Your task to perform on an android device: Open calendar and show me the fourth week of next month Image 0: 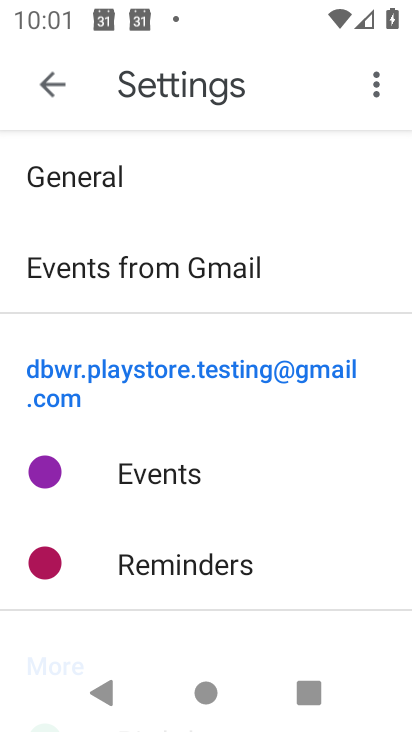
Step 0: press back button
Your task to perform on an android device: Open calendar and show me the fourth week of next month Image 1: 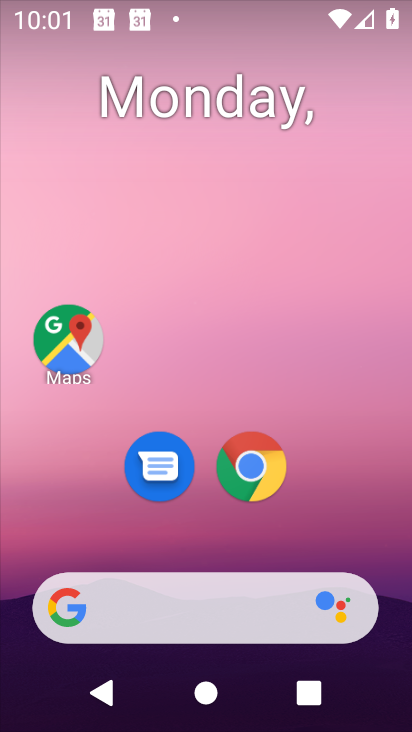
Step 1: drag from (364, 480) to (286, 158)
Your task to perform on an android device: Open calendar and show me the fourth week of next month Image 2: 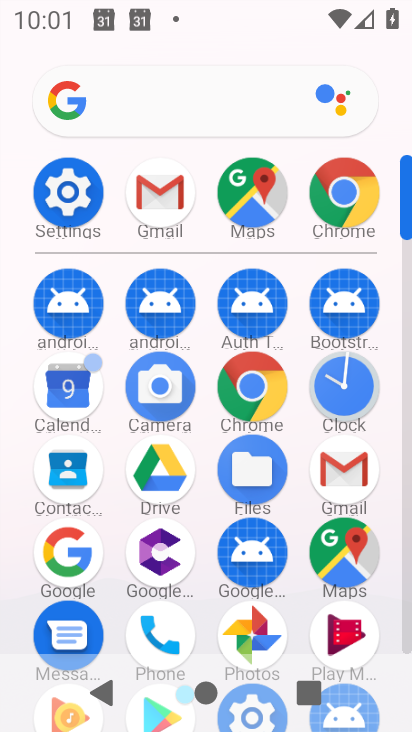
Step 2: click (62, 382)
Your task to perform on an android device: Open calendar and show me the fourth week of next month Image 3: 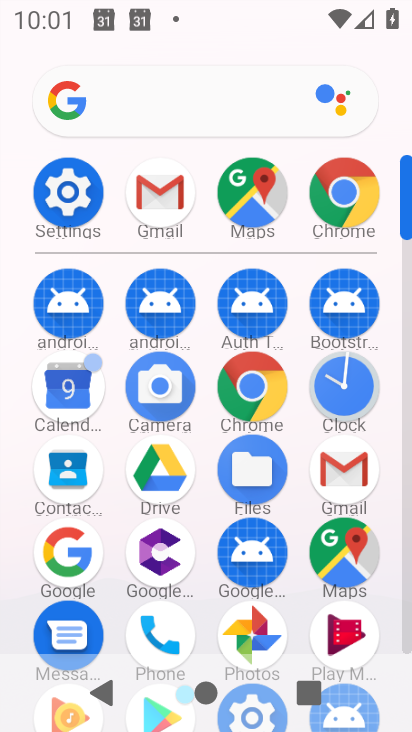
Step 3: click (61, 383)
Your task to perform on an android device: Open calendar and show me the fourth week of next month Image 4: 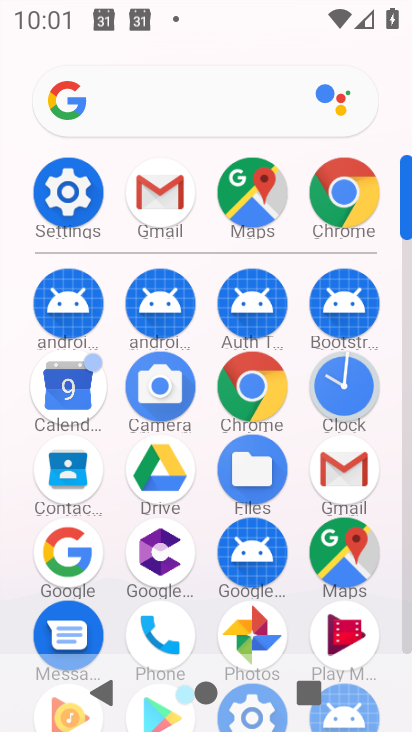
Step 4: click (61, 383)
Your task to perform on an android device: Open calendar and show me the fourth week of next month Image 5: 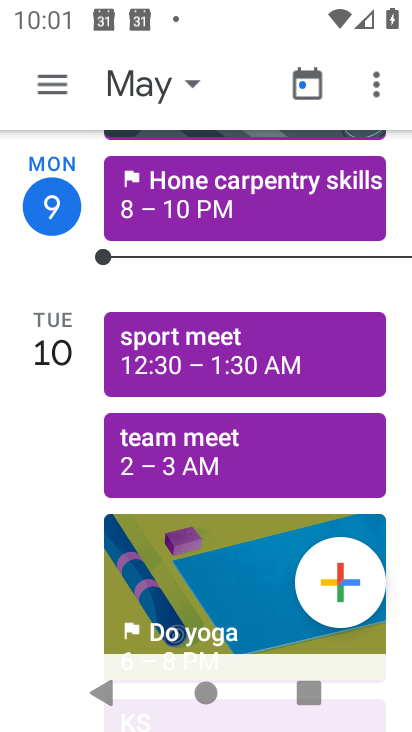
Step 5: click (186, 82)
Your task to perform on an android device: Open calendar and show me the fourth week of next month Image 6: 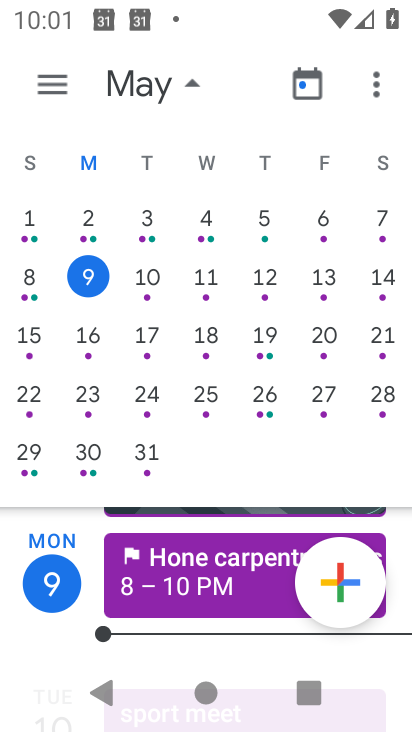
Step 6: drag from (253, 350) to (16, 340)
Your task to perform on an android device: Open calendar and show me the fourth week of next month Image 7: 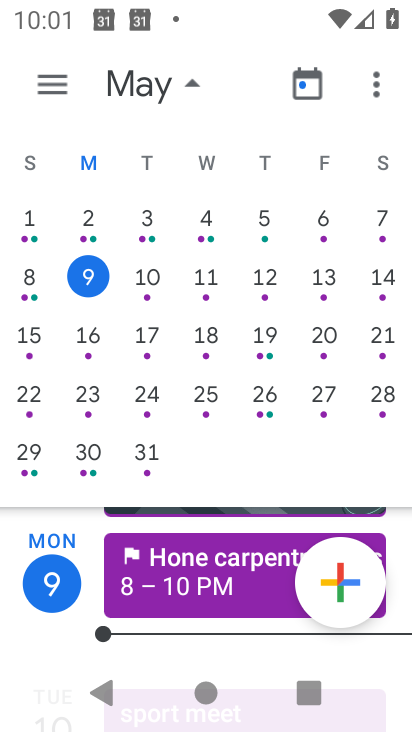
Step 7: drag from (244, 333) to (12, 296)
Your task to perform on an android device: Open calendar and show me the fourth week of next month Image 8: 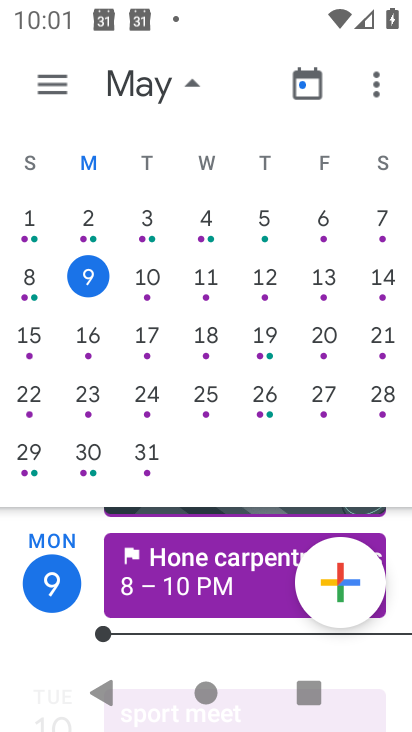
Step 8: drag from (215, 321) to (7, 393)
Your task to perform on an android device: Open calendar and show me the fourth week of next month Image 9: 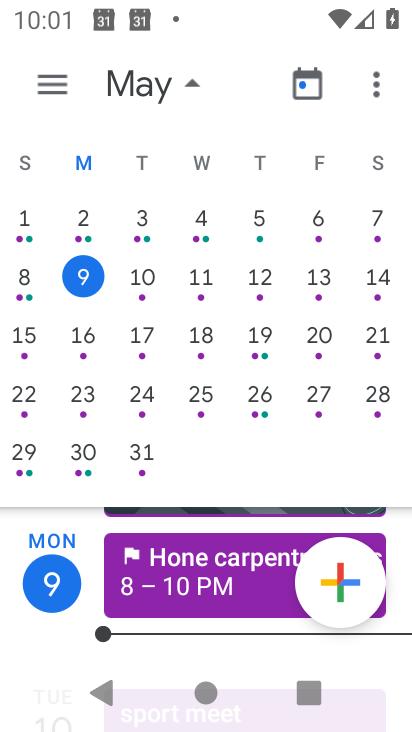
Step 9: drag from (238, 303) to (25, 282)
Your task to perform on an android device: Open calendar and show me the fourth week of next month Image 10: 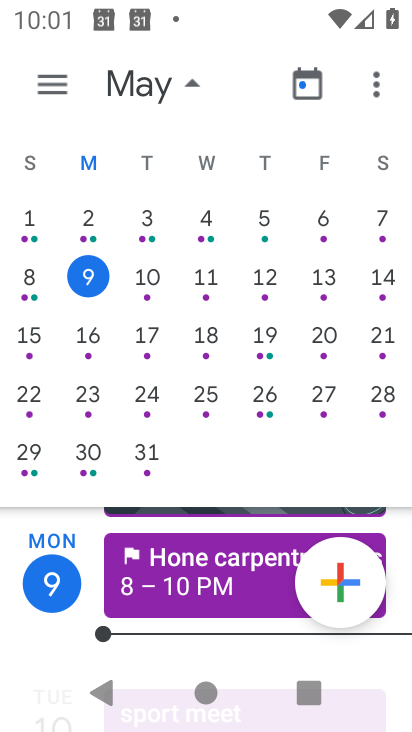
Step 10: drag from (242, 328) to (90, 436)
Your task to perform on an android device: Open calendar and show me the fourth week of next month Image 11: 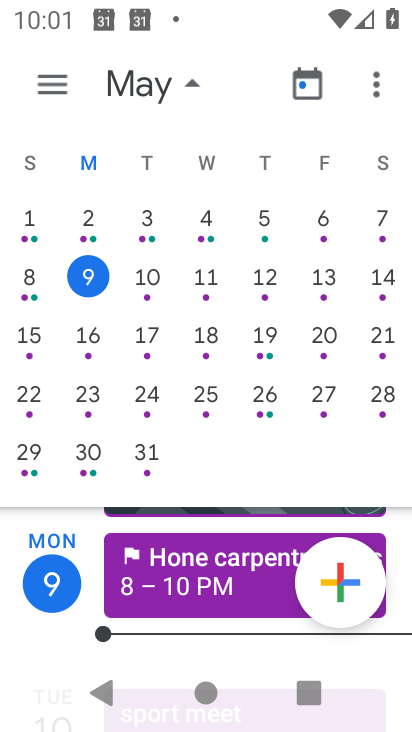
Step 11: drag from (230, 304) to (64, 390)
Your task to perform on an android device: Open calendar and show me the fourth week of next month Image 12: 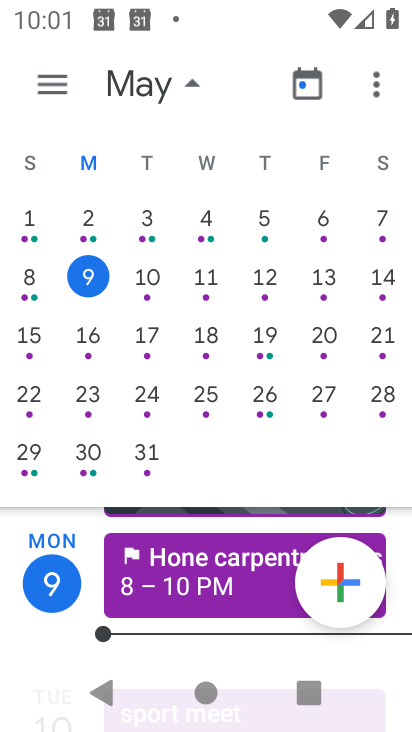
Step 12: drag from (212, 310) to (75, 361)
Your task to perform on an android device: Open calendar and show me the fourth week of next month Image 13: 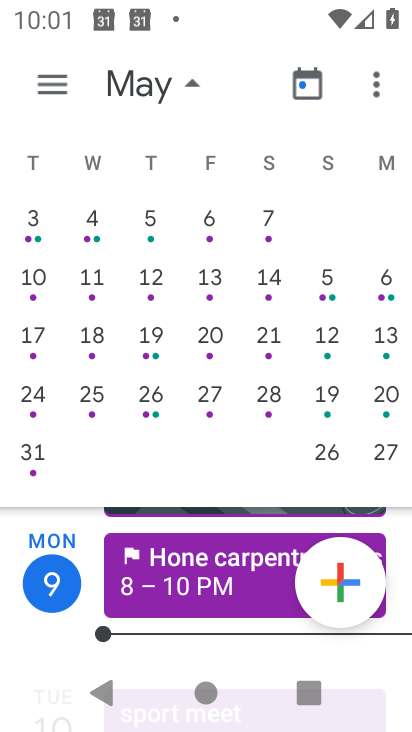
Step 13: drag from (245, 318) to (20, 324)
Your task to perform on an android device: Open calendar and show me the fourth week of next month Image 14: 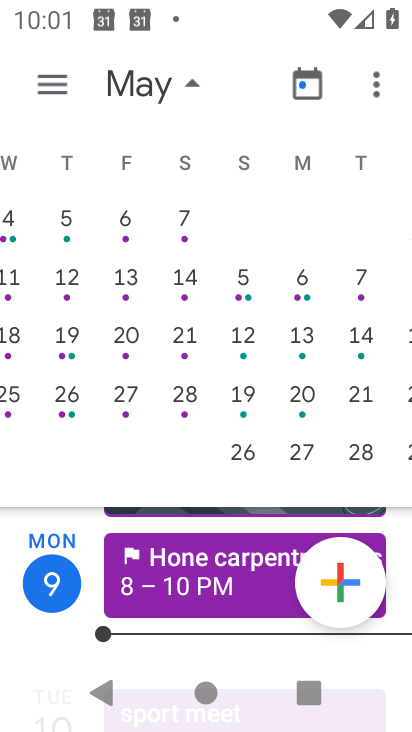
Step 14: drag from (217, 296) to (14, 374)
Your task to perform on an android device: Open calendar and show me the fourth week of next month Image 15: 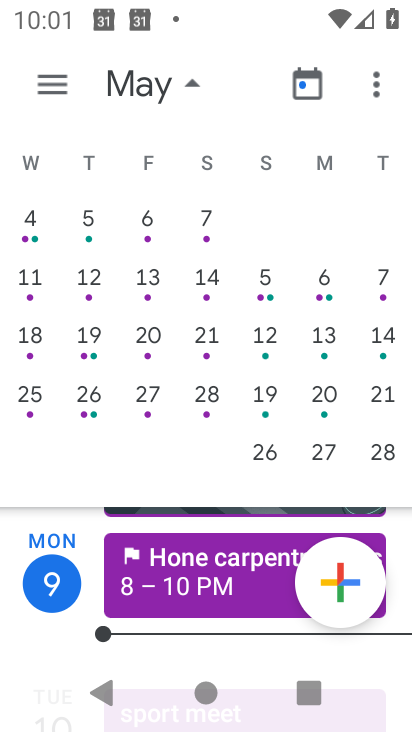
Step 15: drag from (226, 364) to (12, 322)
Your task to perform on an android device: Open calendar and show me the fourth week of next month Image 16: 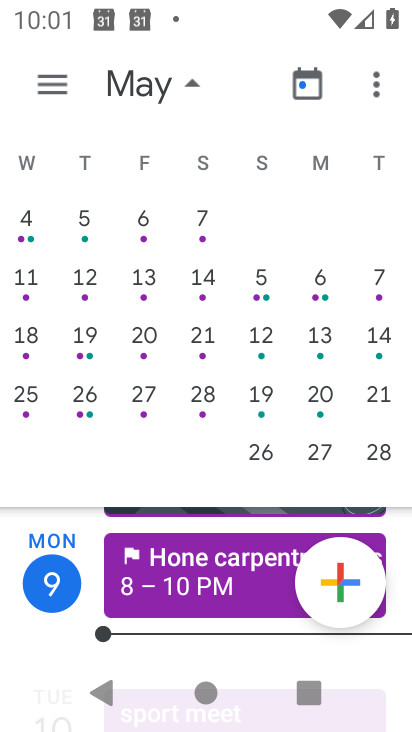
Step 16: drag from (264, 261) to (100, 350)
Your task to perform on an android device: Open calendar and show me the fourth week of next month Image 17: 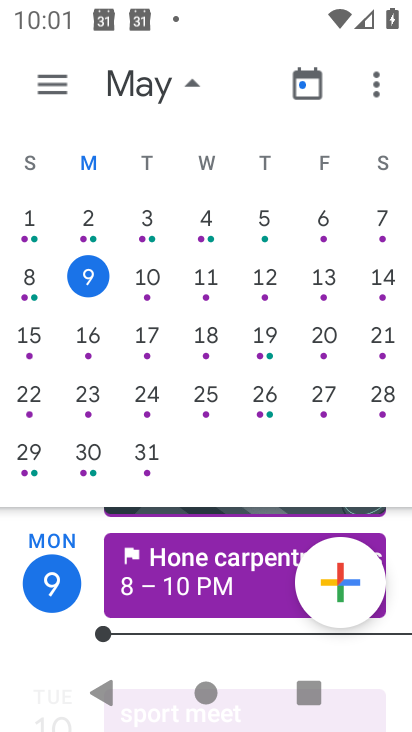
Step 17: drag from (173, 312) to (75, 328)
Your task to perform on an android device: Open calendar and show me the fourth week of next month Image 18: 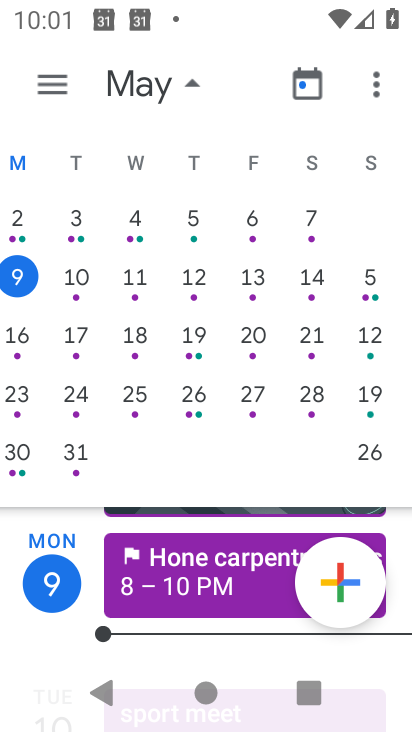
Step 18: drag from (185, 303) to (23, 320)
Your task to perform on an android device: Open calendar and show me the fourth week of next month Image 19: 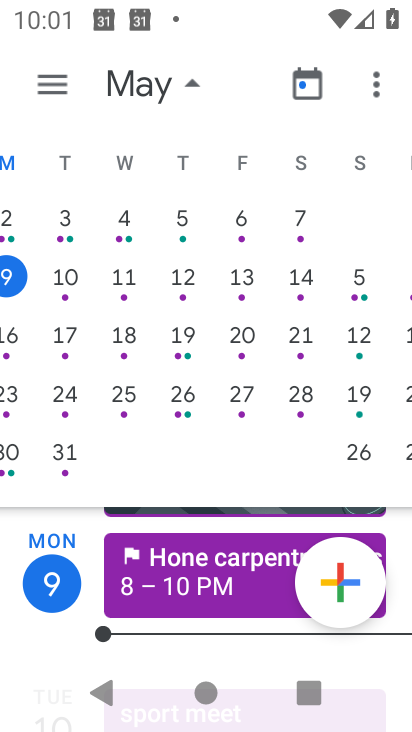
Step 19: drag from (281, 271) to (99, 285)
Your task to perform on an android device: Open calendar and show me the fourth week of next month Image 20: 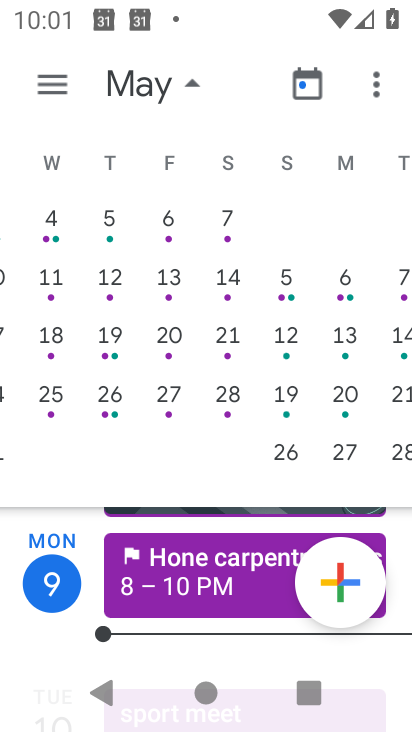
Step 20: drag from (294, 275) to (61, 344)
Your task to perform on an android device: Open calendar and show me the fourth week of next month Image 21: 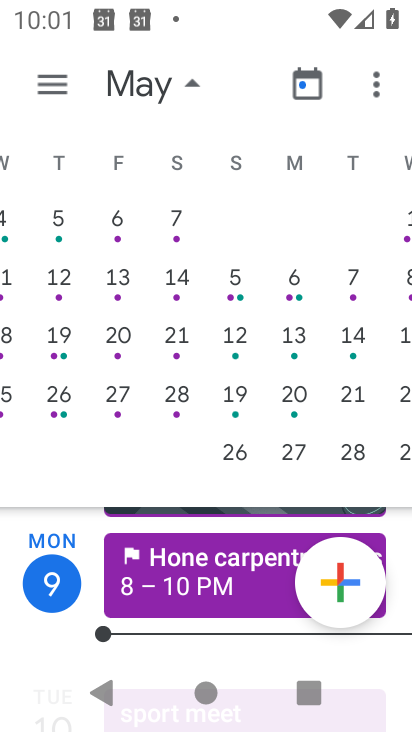
Step 21: drag from (239, 356) to (172, 379)
Your task to perform on an android device: Open calendar and show me the fourth week of next month Image 22: 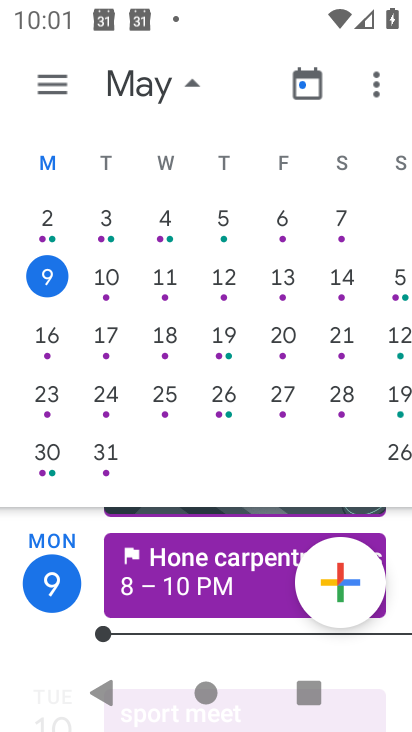
Step 22: drag from (316, 318) to (107, 379)
Your task to perform on an android device: Open calendar and show me the fourth week of next month Image 23: 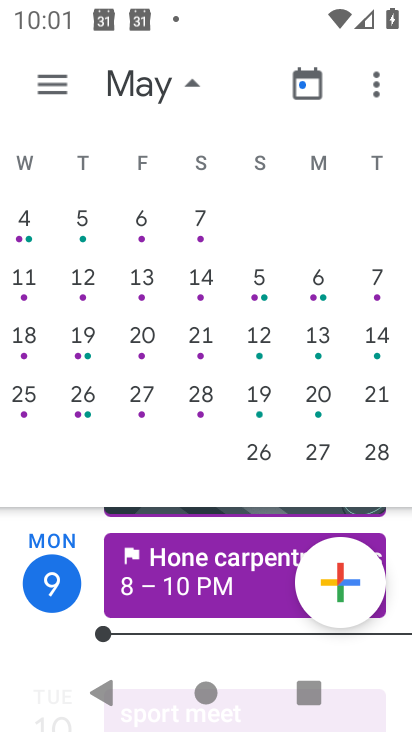
Step 23: drag from (181, 340) to (39, 350)
Your task to perform on an android device: Open calendar and show me the fourth week of next month Image 24: 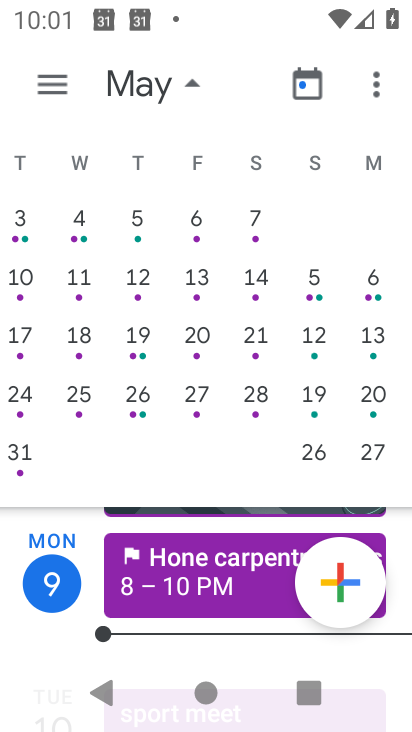
Step 24: drag from (234, 277) to (49, 309)
Your task to perform on an android device: Open calendar and show me the fourth week of next month Image 25: 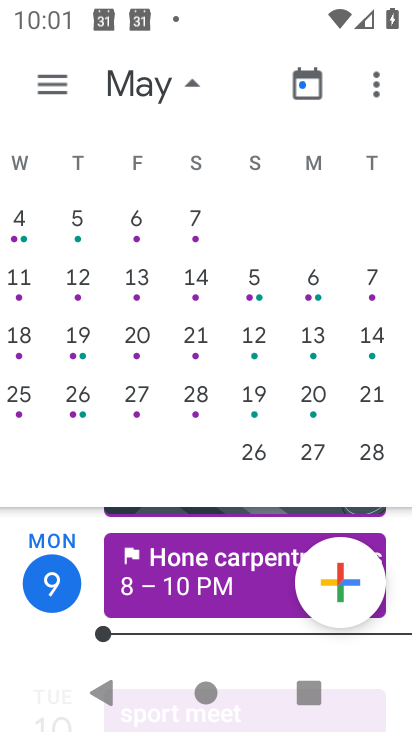
Step 25: drag from (330, 308) to (43, 263)
Your task to perform on an android device: Open calendar and show me the fourth week of next month Image 26: 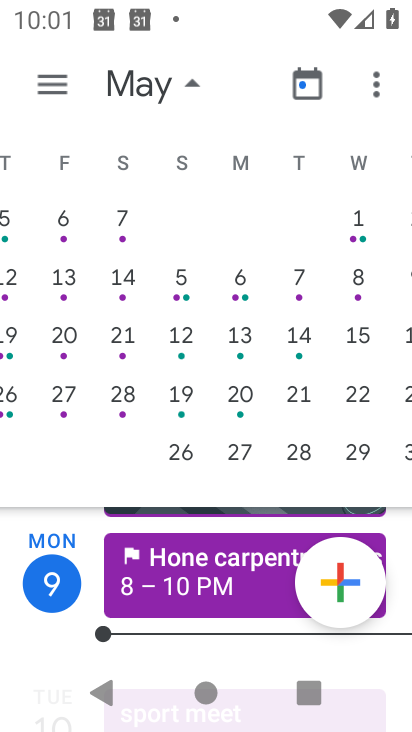
Step 26: drag from (240, 291) to (67, 387)
Your task to perform on an android device: Open calendar and show me the fourth week of next month Image 27: 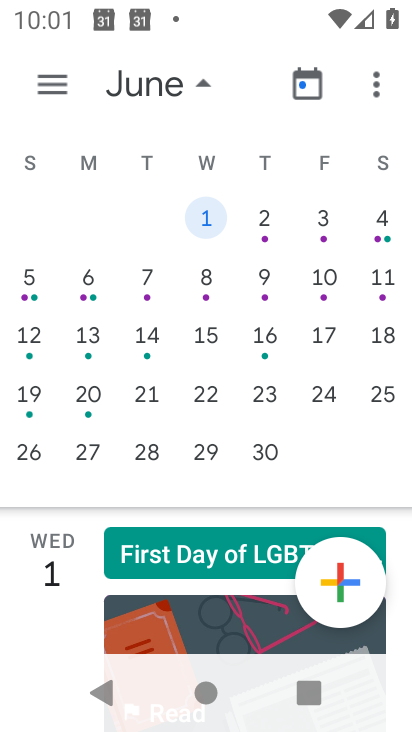
Step 27: click (323, 332)
Your task to perform on an android device: Open calendar and show me the fourth week of next month Image 28: 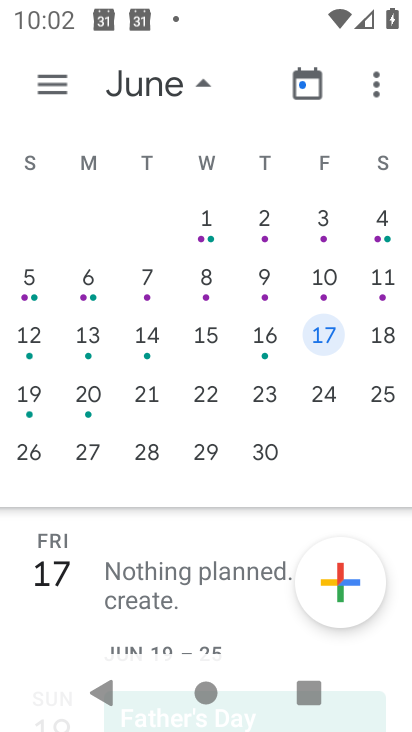
Step 28: click (214, 388)
Your task to perform on an android device: Open calendar and show me the fourth week of next month Image 29: 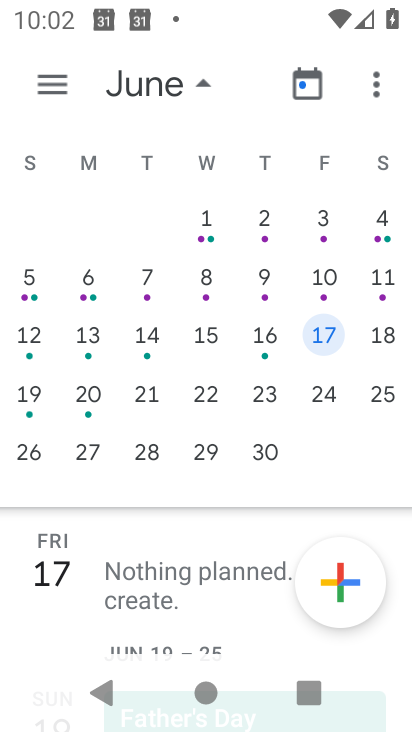
Step 29: click (212, 390)
Your task to perform on an android device: Open calendar and show me the fourth week of next month Image 30: 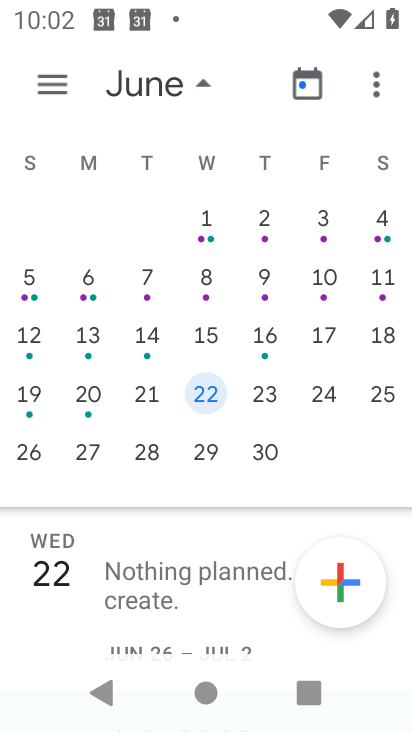
Step 30: click (210, 391)
Your task to perform on an android device: Open calendar and show me the fourth week of next month Image 31: 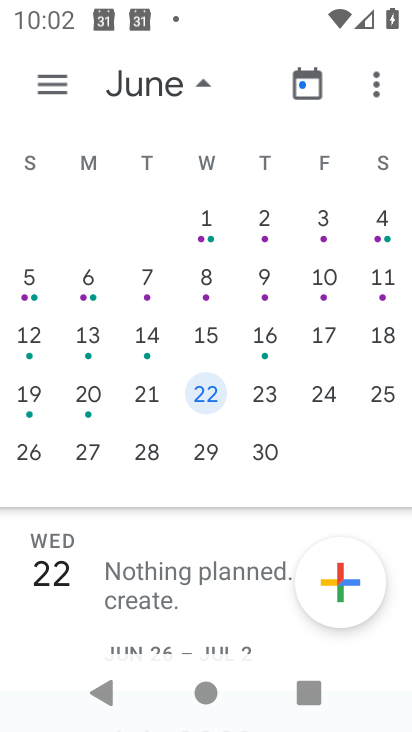
Step 31: click (211, 391)
Your task to perform on an android device: Open calendar and show me the fourth week of next month Image 32: 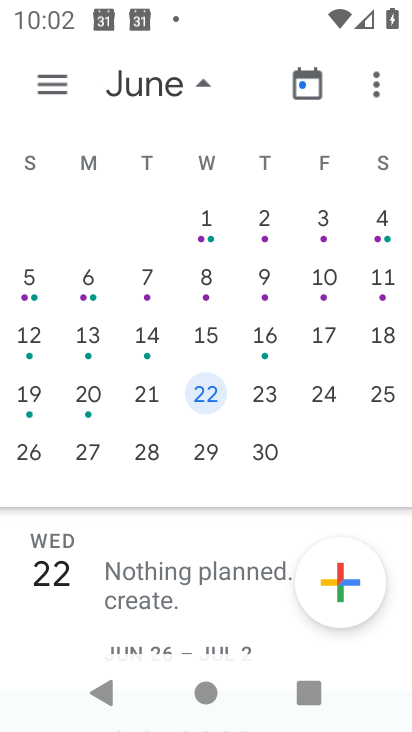
Step 32: task complete